Your task to perform on an android device: Open Yahoo.com Image 0: 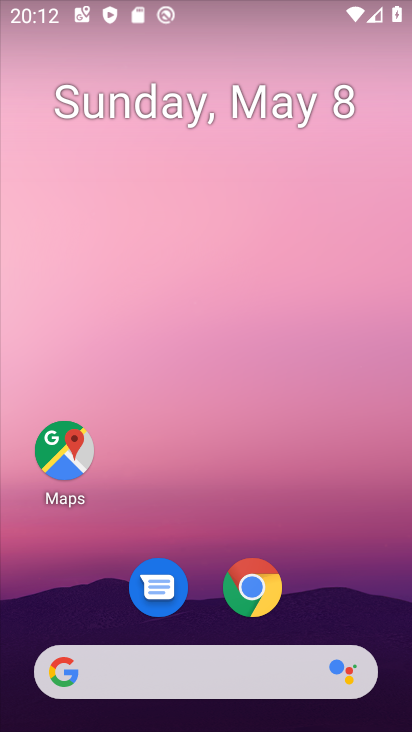
Step 0: click (255, 591)
Your task to perform on an android device: Open Yahoo.com Image 1: 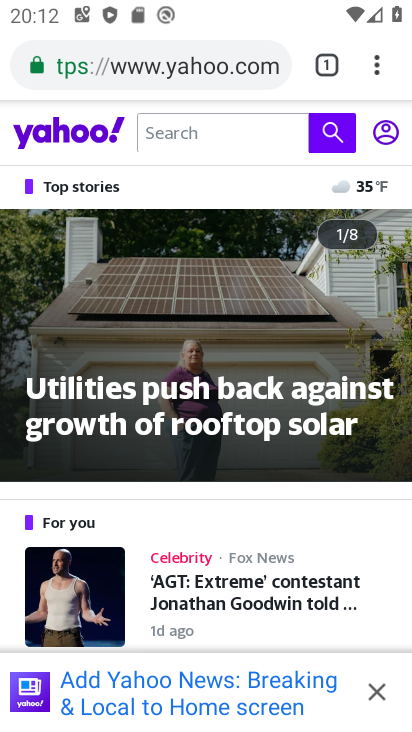
Step 1: task complete